Your task to perform on an android device: find snoozed emails in the gmail app Image 0: 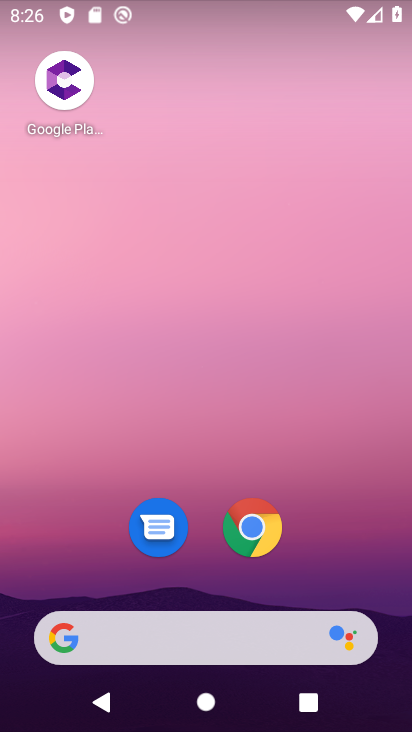
Step 0: drag from (354, 543) to (262, 40)
Your task to perform on an android device: find snoozed emails in the gmail app Image 1: 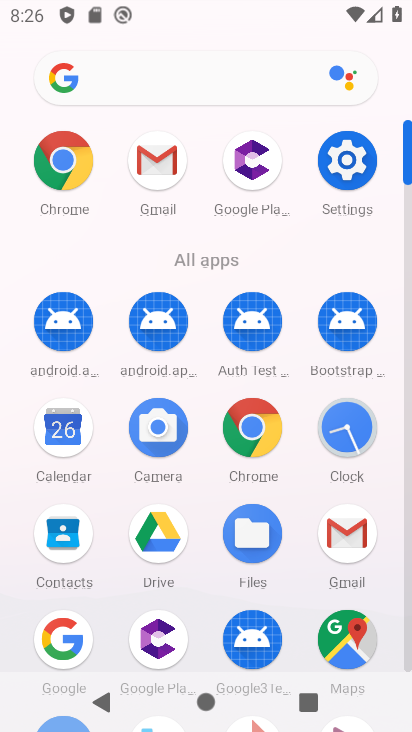
Step 1: click (154, 160)
Your task to perform on an android device: find snoozed emails in the gmail app Image 2: 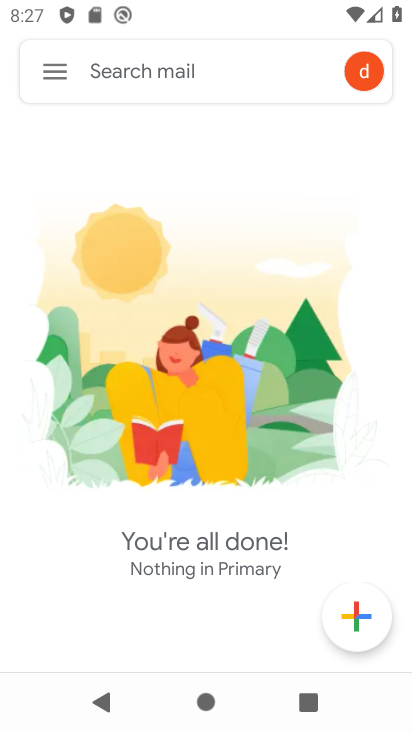
Step 2: click (50, 73)
Your task to perform on an android device: find snoozed emails in the gmail app Image 3: 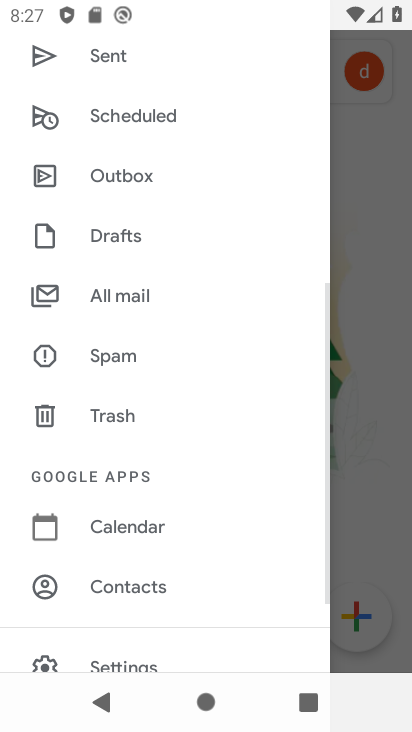
Step 3: drag from (134, 177) to (143, 576)
Your task to perform on an android device: find snoozed emails in the gmail app Image 4: 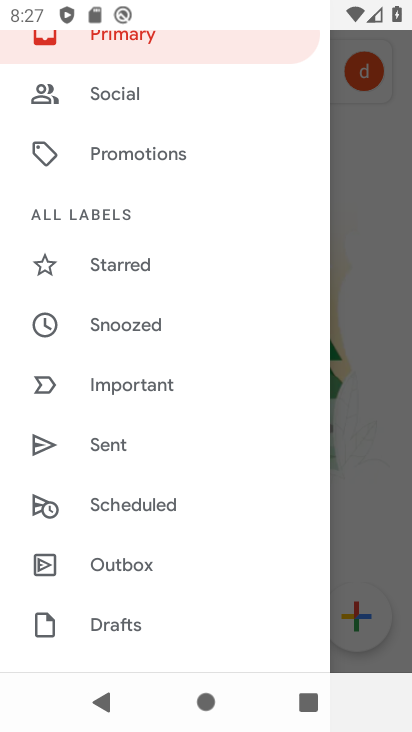
Step 4: click (139, 341)
Your task to perform on an android device: find snoozed emails in the gmail app Image 5: 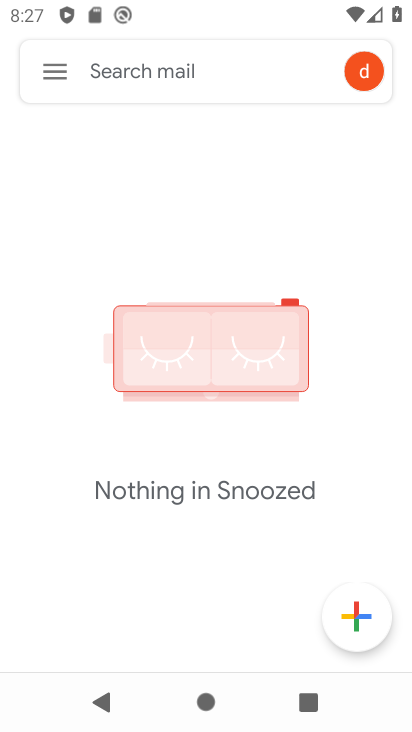
Step 5: task complete